Your task to perform on an android device: Go to display settings Image 0: 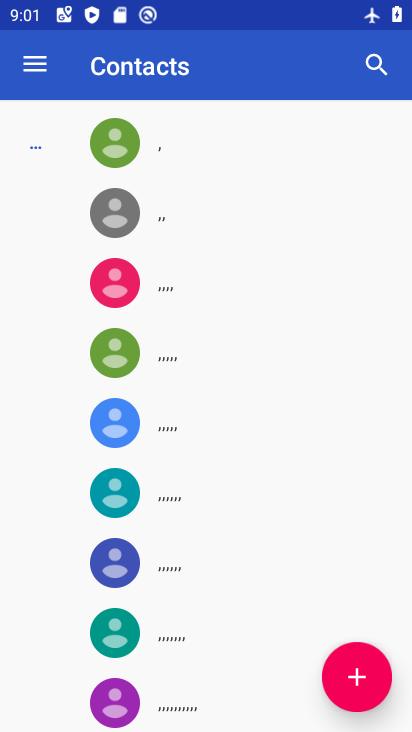
Step 0: press home button
Your task to perform on an android device: Go to display settings Image 1: 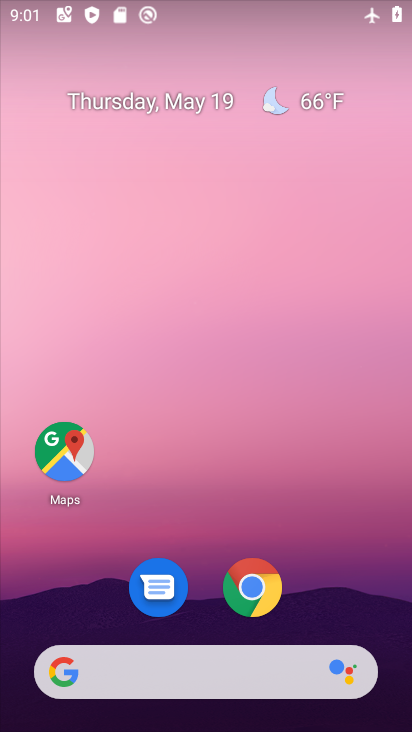
Step 1: drag from (229, 691) to (244, 206)
Your task to perform on an android device: Go to display settings Image 2: 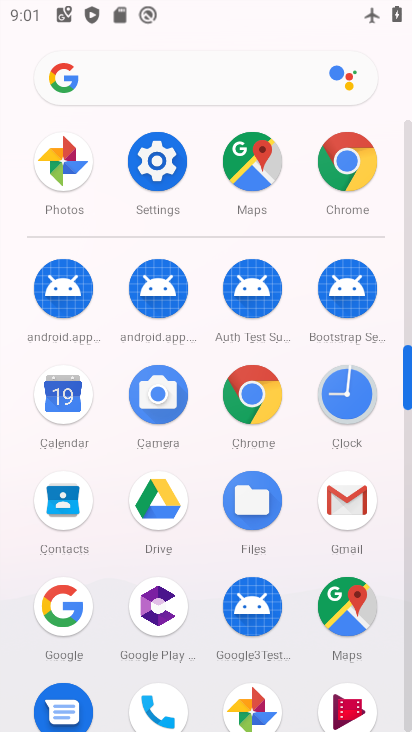
Step 2: click (149, 165)
Your task to perform on an android device: Go to display settings Image 3: 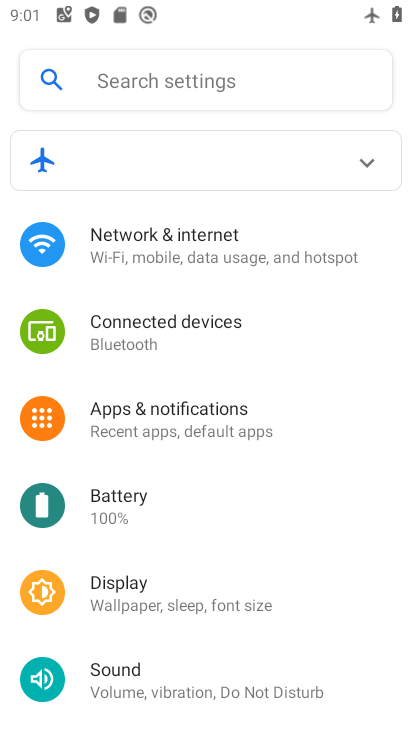
Step 3: click (166, 597)
Your task to perform on an android device: Go to display settings Image 4: 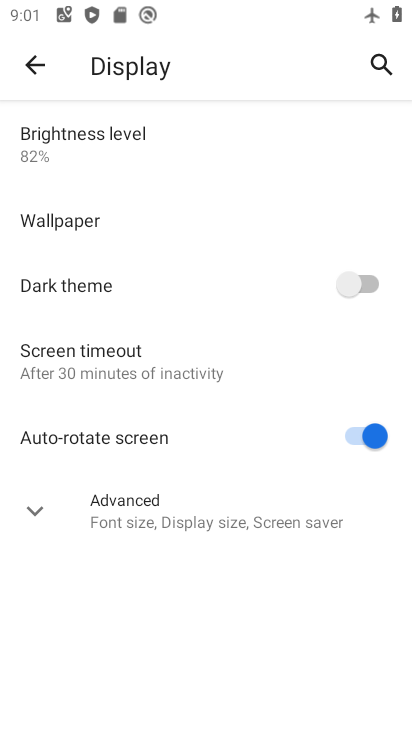
Step 4: click (42, 510)
Your task to perform on an android device: Go to display settings Image 5: 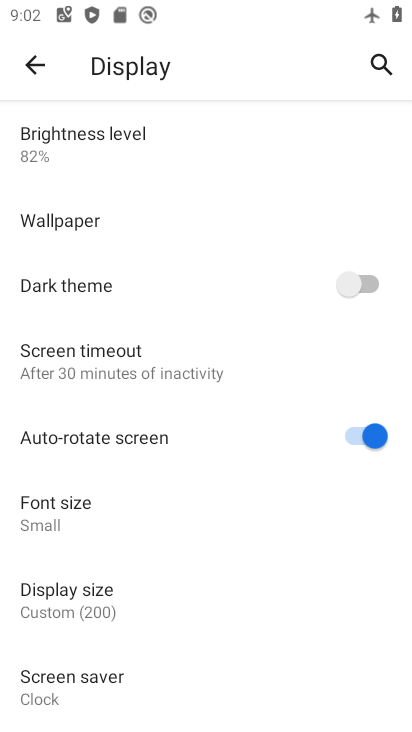
Step 5: task complete